Your task to perform on an android device: Open Yahoo.com Image 0: 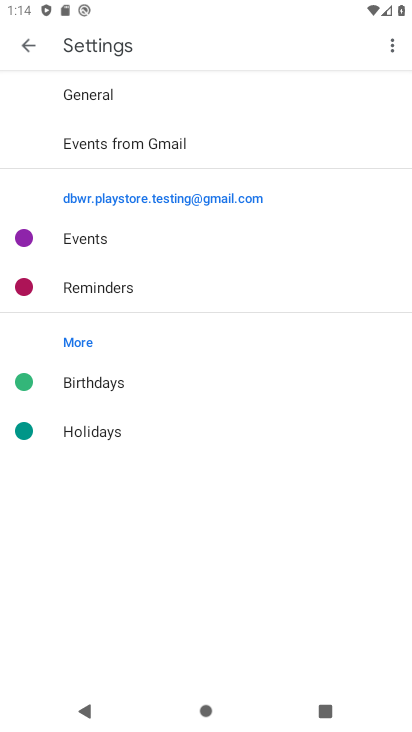
Step 0: press home button
Your task to perform on an android device: Open Yahoo.com Image 1: 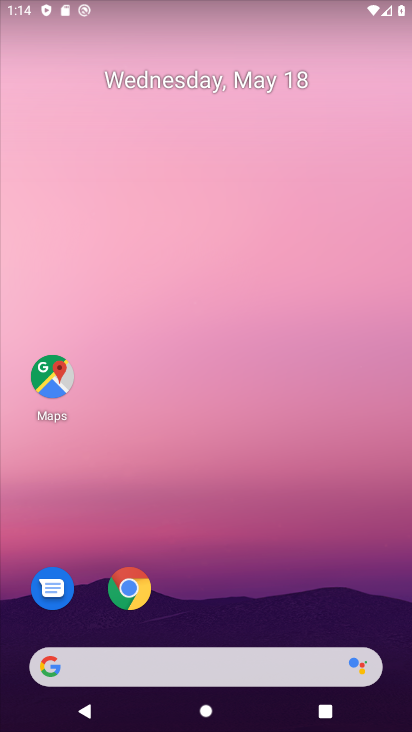
Step 1: drag from (353, 602) to (333, 73)
Your task to perform on an android device: Open Yahoo.com Image 2: 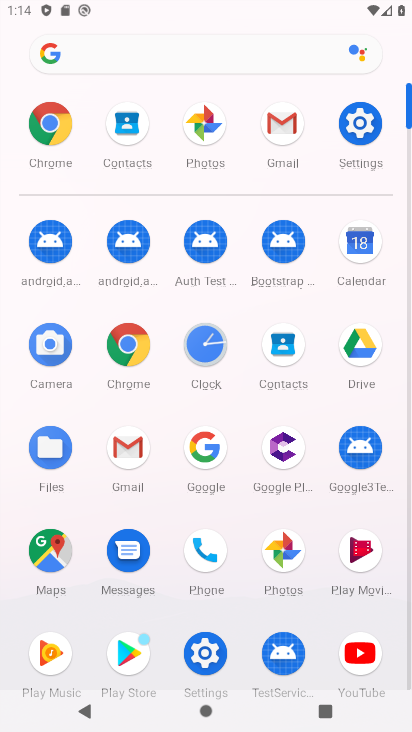
Step 2: click (133, 359)
Your task to perform on an android device: Open Yahoo.com Image 3: 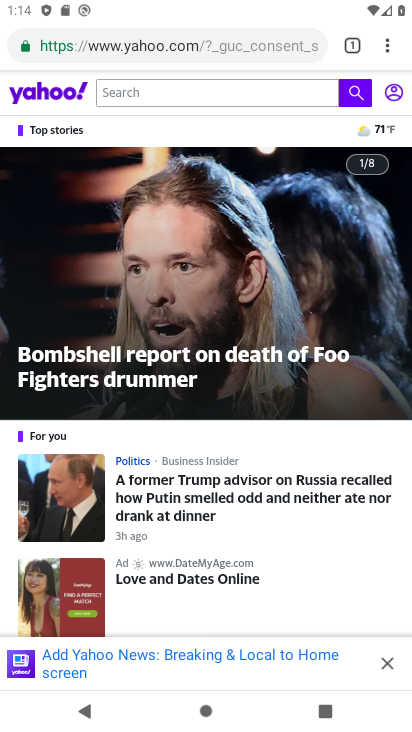
Step 3: task complete